Your task to perform on an android device: open a bookmark in the chrome app Image 0: 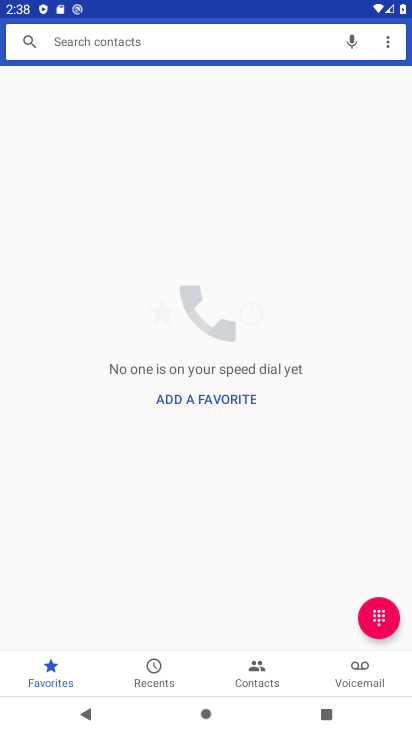
Step 0: press home button
Your task to perform on an android device: open a bookmark in the chrome app Image 1: 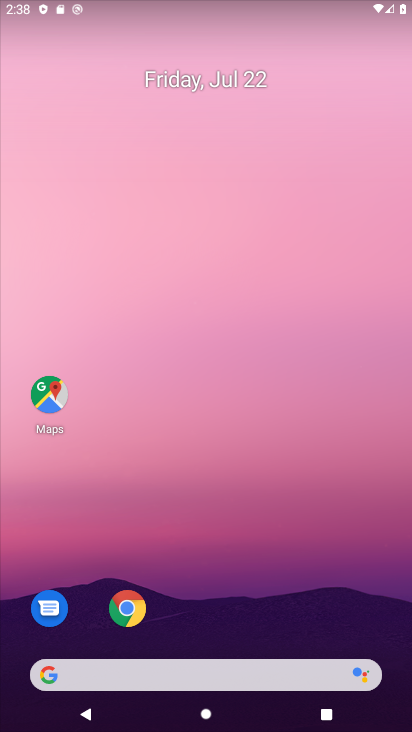
Step 1: drag from (98, 12) to (135, 411)
Your task to perform on an android device: open a bookmark in the chrome app Image 2: 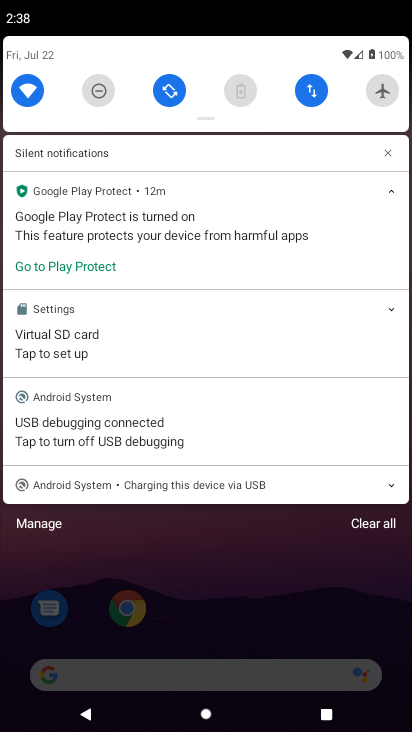
Step 2: click (21, 92)
Your task to perform on an android device: open a bookmark in the chrome app Image 3: 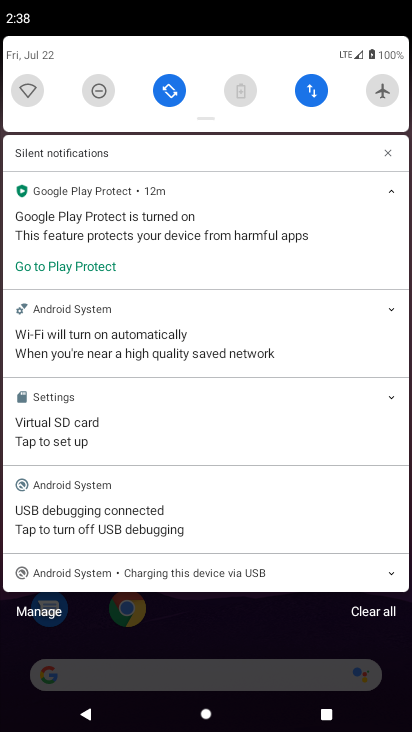
Step 3: task complete